Your task to perform on an android device: Open the stopwatch Image 0: 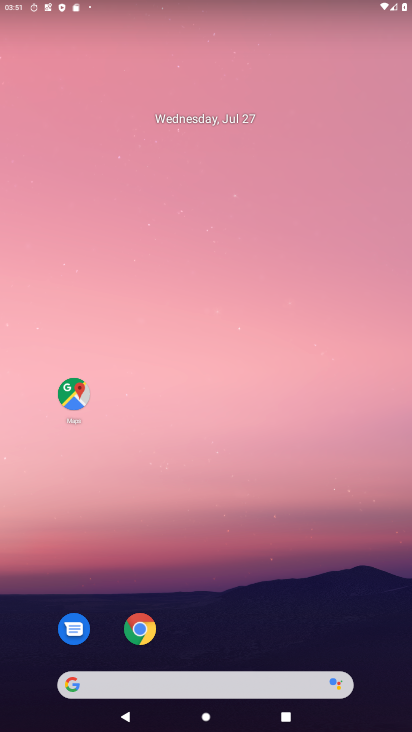
Step 0: drag from (311, 617) to (267, 68)
Your task to perform on an android device: Open the stopwatch Image 1: 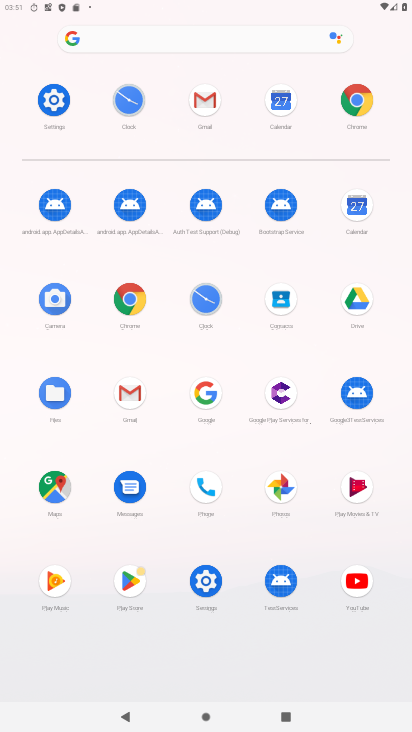
Step 1: click (205, 292)
Your task to perform on an android device: Open the stopwatch Image 2: 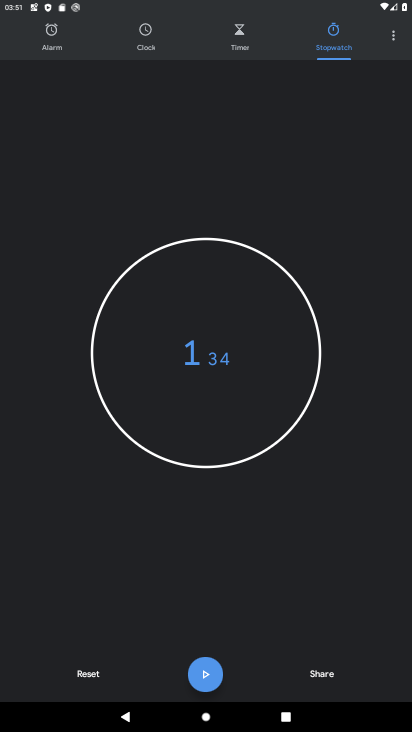
Step 2: task complete